Your task to perform on an android device: add a contact Image 0: 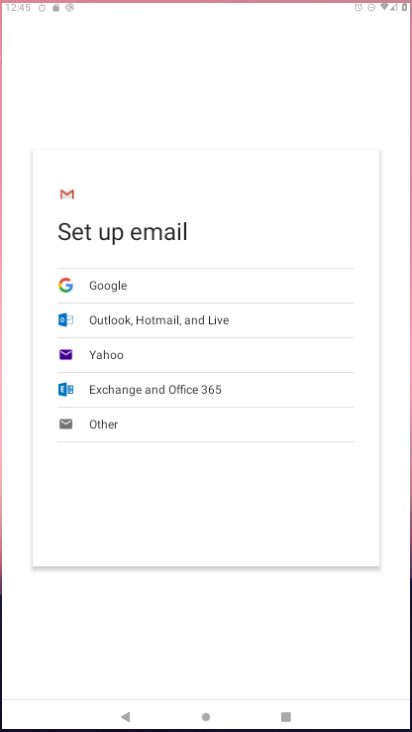
Step 0: drag from (218, 637) to (221, 165)
Your task to perform on an android device: add a contact Image 1: 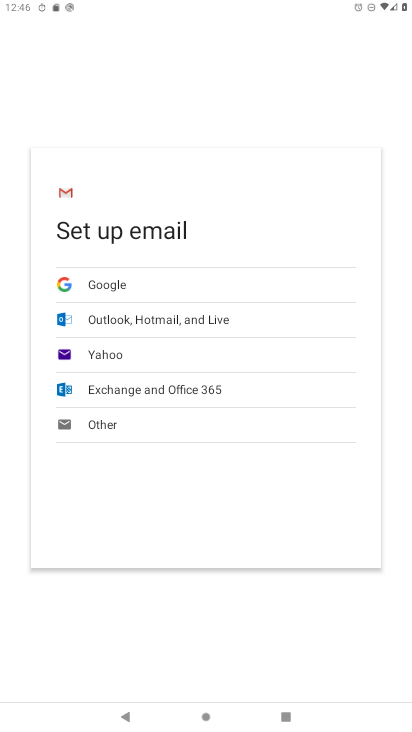
Step 1: press home button
Your task to perform on an android device: add a contact Image 2: 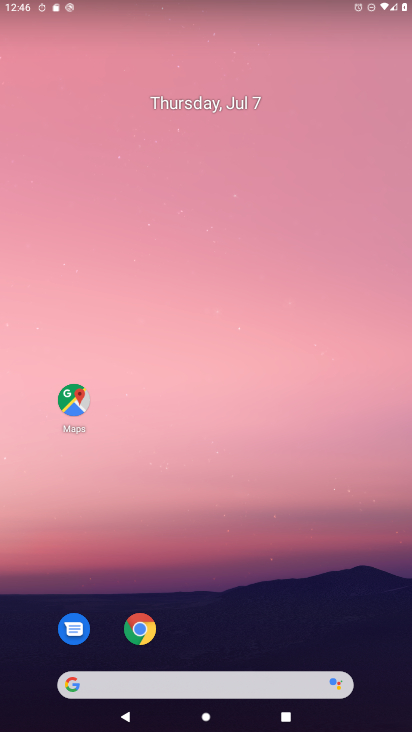
Step 2: drag from (206, 645) to (235, 128)
Your task to perform on an android device: add a contact Image 3: 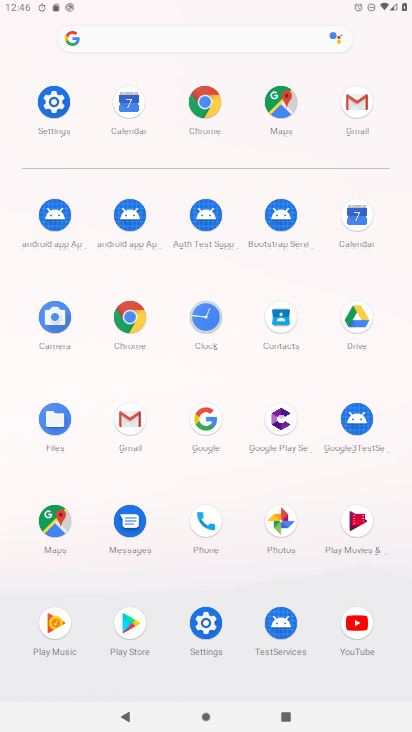
Step 3: click (287, 324)
Your task to perform on an android device: add a contact Image 4: 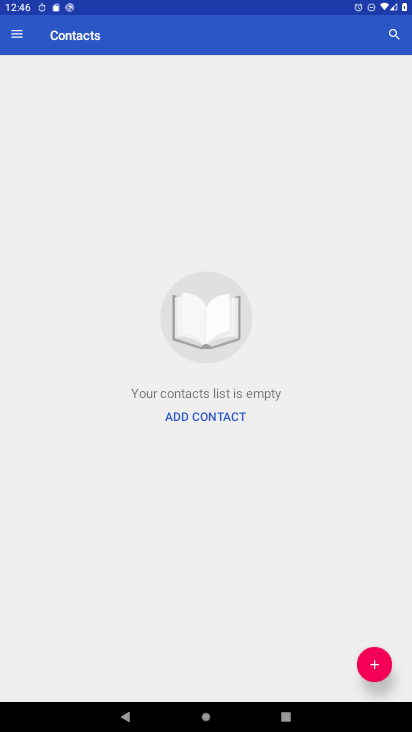
Step 4: click (378, 658)
Your task to perform on an android device: add a contact Image 5: 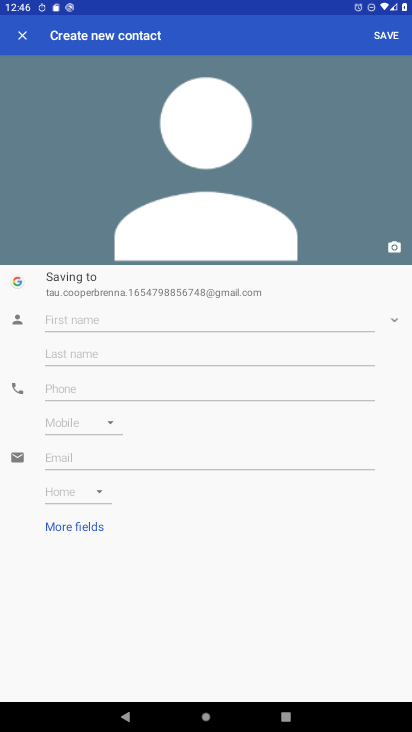
Step 5: click (97, 328)
Your task to perform on an android device: add a contact Image 6: 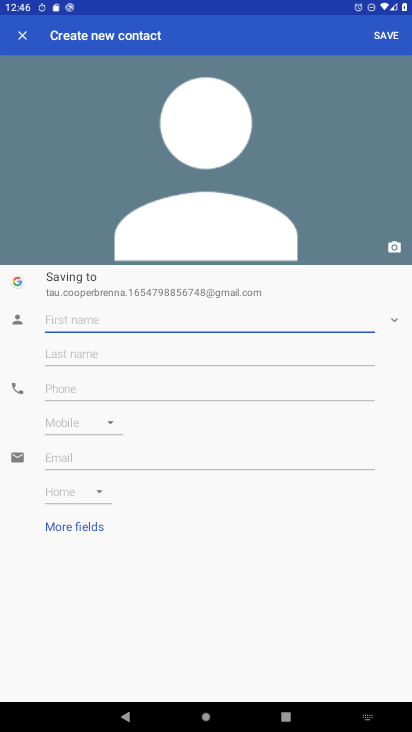
Step 6: type "drth"
Your task to perform on an android device: add a contact Image 7: 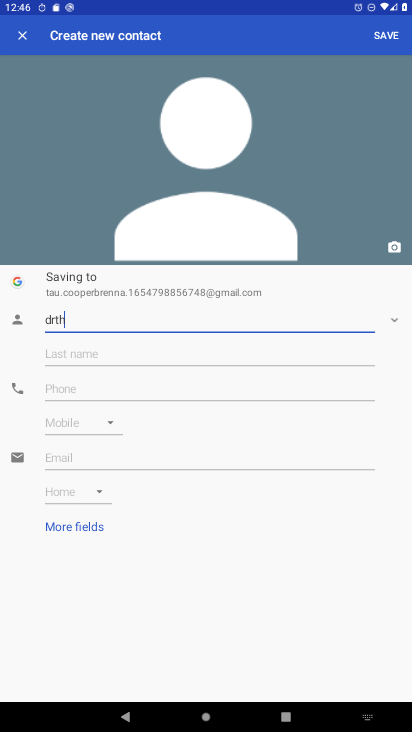
Step 7: click (145, 390)
Your task to perform on an android device: add a contact Image 8: 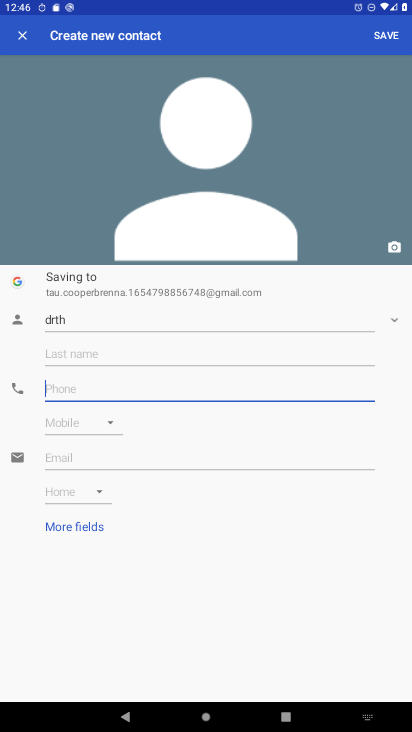
Step 8: type "86575757656"
Your task to perform on an android device: add a contact Image 9: 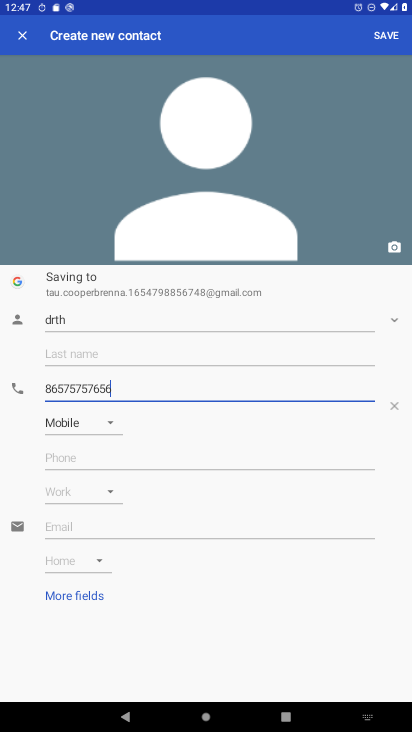
Step 9: click (395, 30)
Your task to perform on an android device: add a contact Image 10: 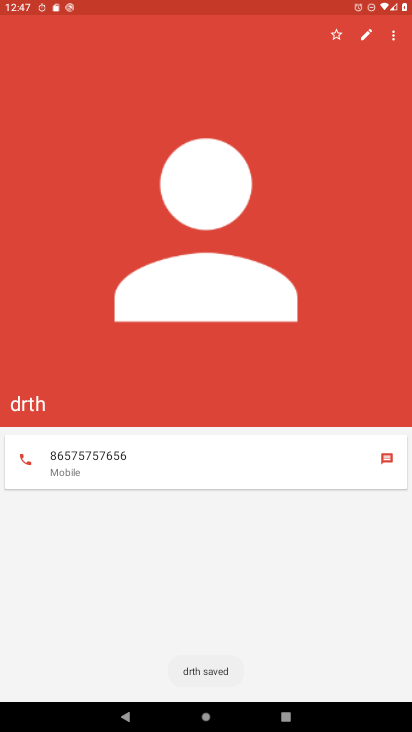
Step 10: task complete